Your task to perform on an android device: see sites visited before in the chrome app Image 0: 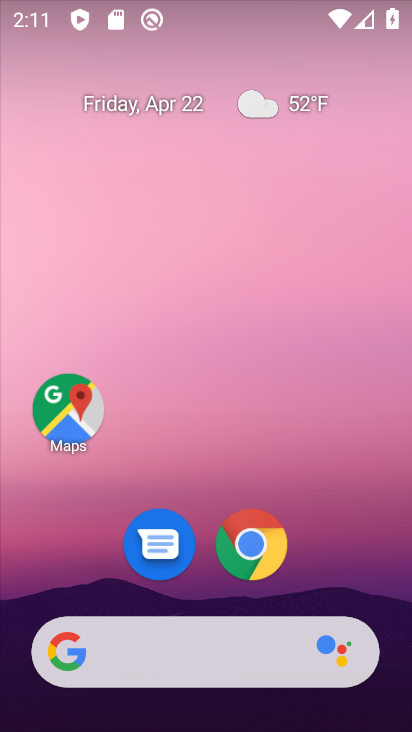
Step 0: click (262, 562)
Your task to perform on an android device: see sites visited before in the chrome app Image 1: 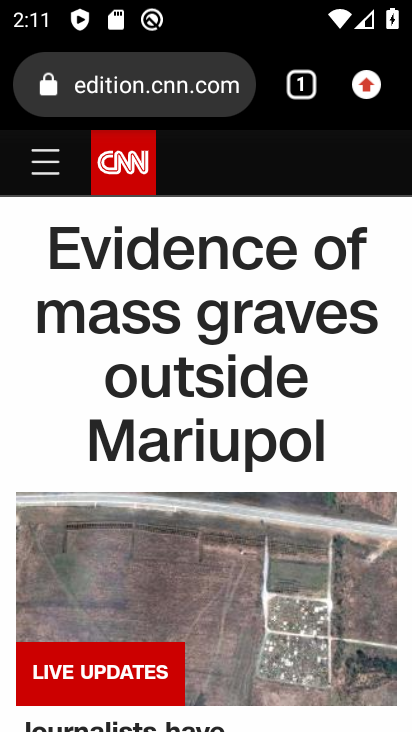
Step 1: click (366, 101)
Your task to perform on an android device: see sites visited before in the chrome app Image 2: 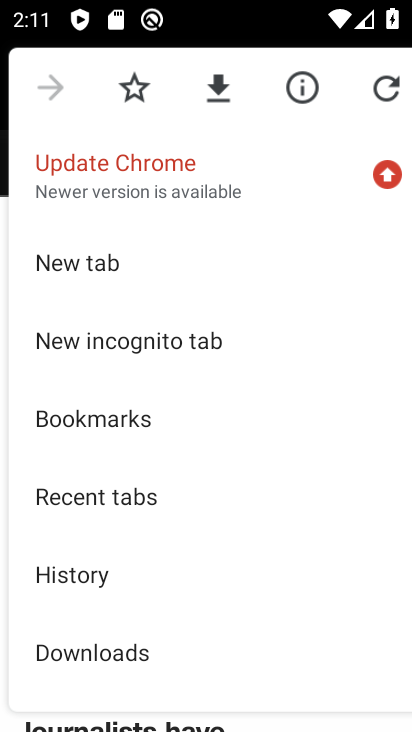
Step 2: click (137, 487)
Your task to perform on an android device: see sites visited before in the chrome app Image 3: 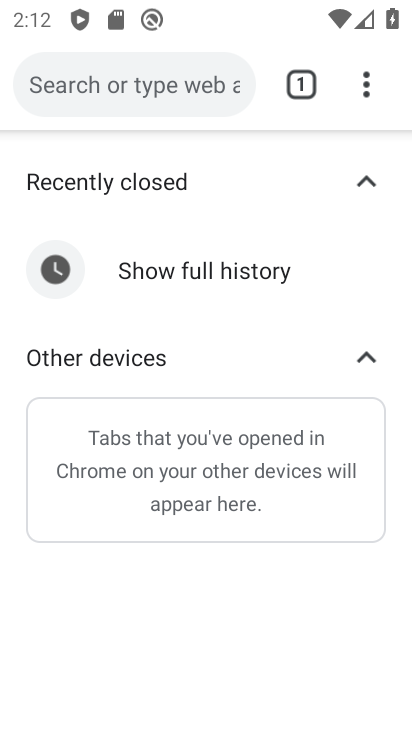
Step 3: task complete